Your task to perform on an android device: turn notification dots off Image 0: 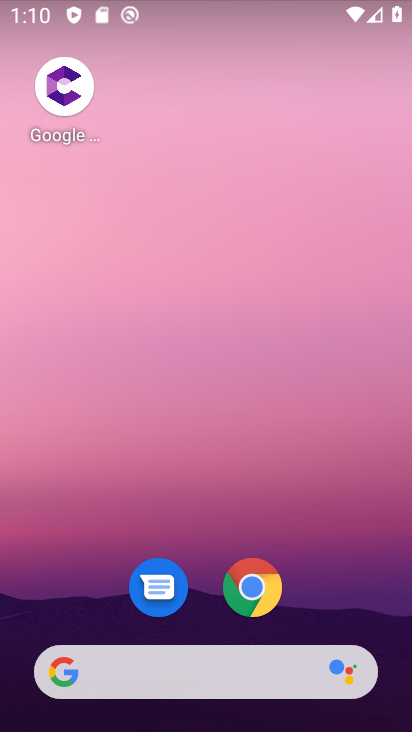
Step 0: drag from (207, 729) to (219, 311)
Your task to perform on an android device: turn notification dots off Image 1: 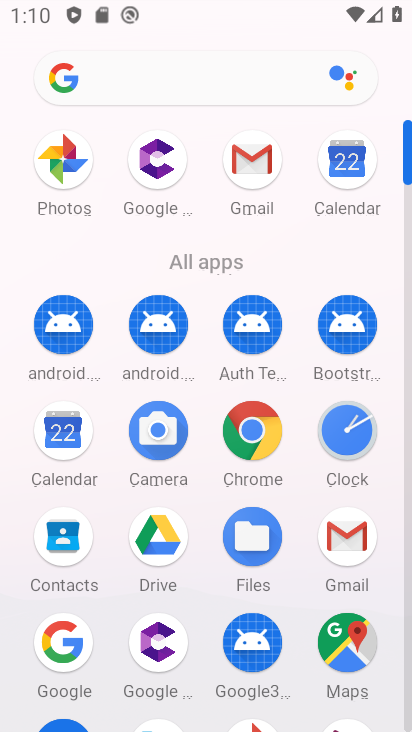
Step 1: drag from (195, 630) to (226, 436)
Your task to perform on an android device: turn notification dots off Image 2: 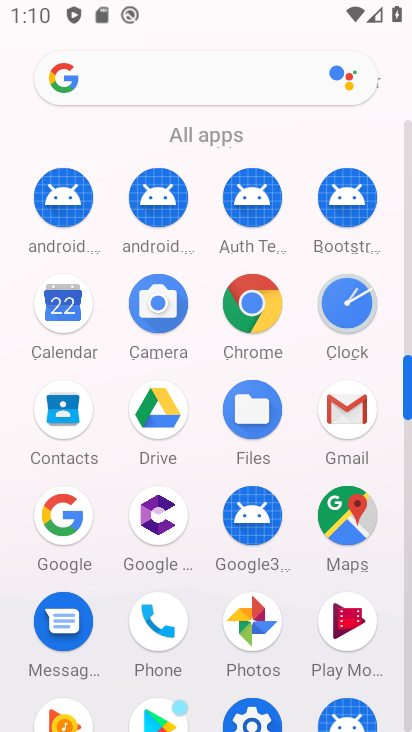
Step 2: click (241, 716)
Your task to perform on an android device: turn notification dots off Image 3: 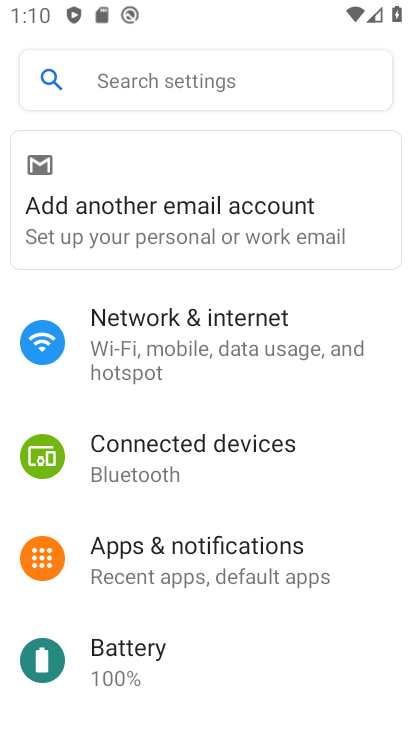
Step 3: drag from (228, 619) to (232, 484)
Your task to perform on an android device: turn notification dots off Image 4: 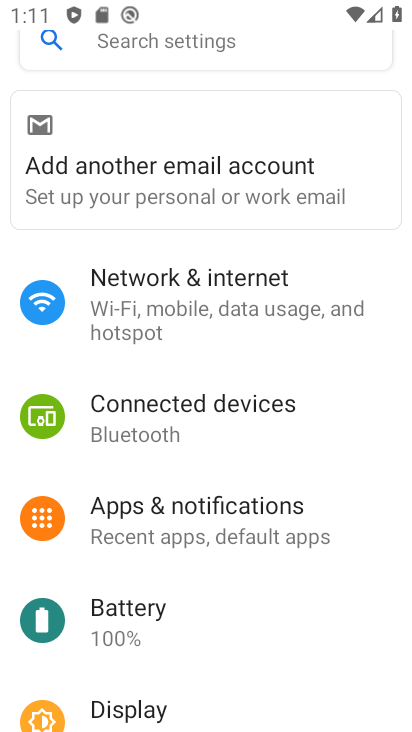
Step 4: click (285, 514)
Your task to perform on an android device: turn notification dots off Image 5: 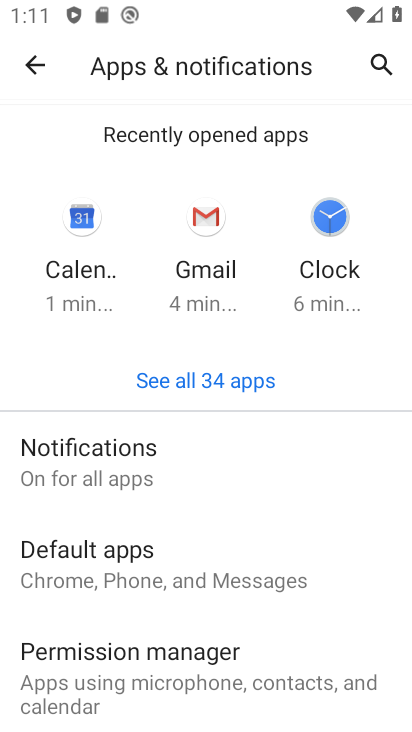
Step 5: click (258, 480)
Your task to perform on an android device: turn notification dots off Image 6: 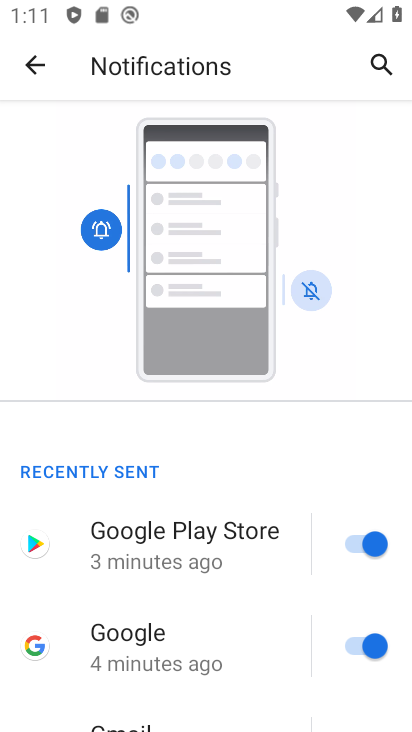
Step 6: drag from (216, 677) to (226, 536)
Your task to perform on an android device: turn notification dots off Image 7: 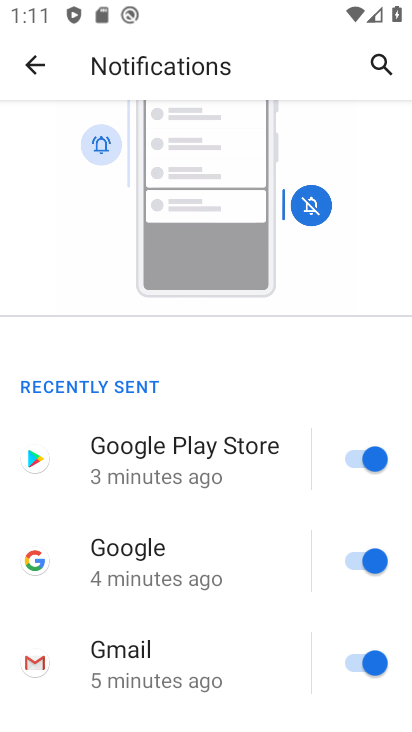
Step 7: drag from (185, 681) to (159, 555)
Your task to perform on an android device: turn notification dots off Image 8: 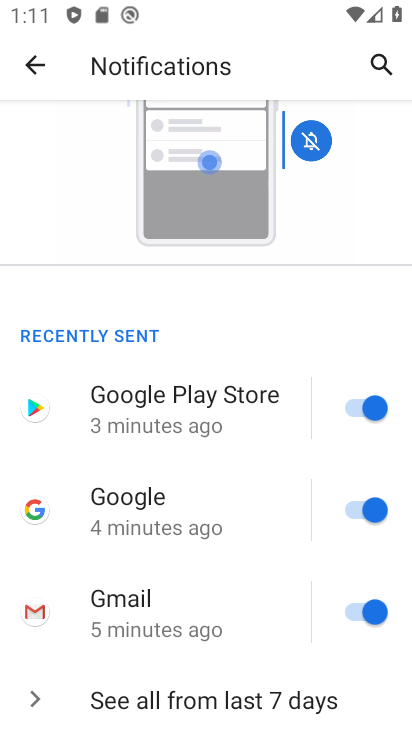
Step 8: drag from (179, 644) to (167, 549)
Your task to perform on an android device: turn notification dots off Image 9: 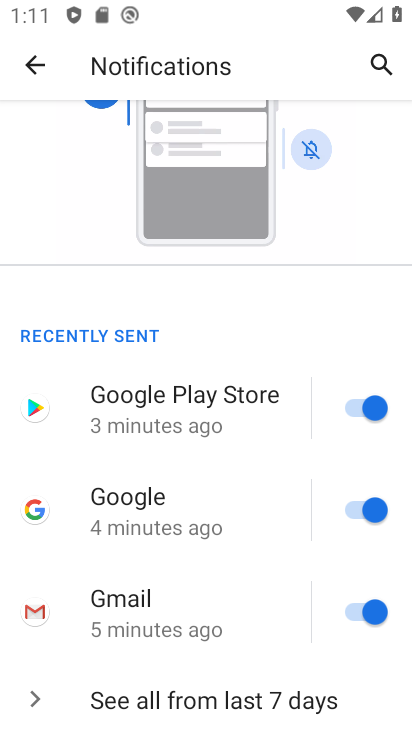
Step 9: drag from (146, 665) to (104, 584)
Your task to perform on an android device: turn notification dots off Image 10: 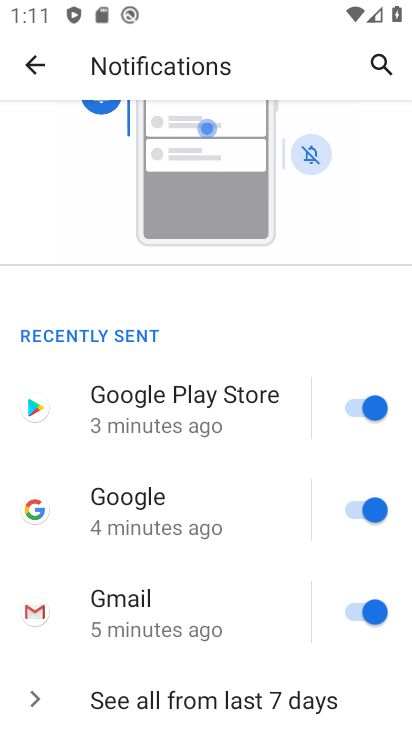
Step 10: click (370, 415)
Your task to perform on an android device: turn notification dots off Image 11: 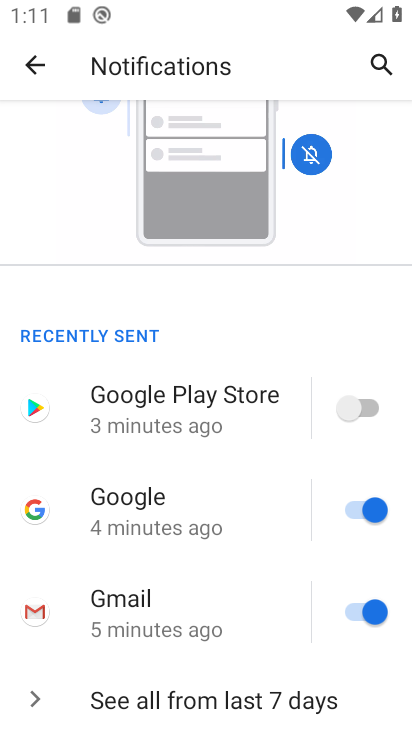
Step 11: click (370, 518)
Your task to perform on an android device: turn notification dots off Image 12: 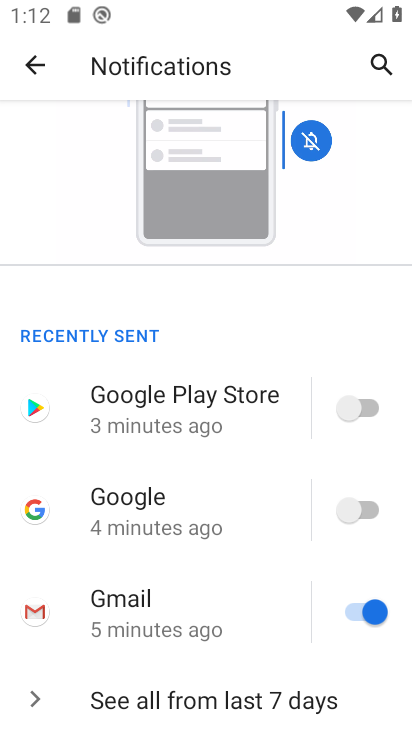
Step 12: click (378, 621)
Your task to perform on an android device: turn notification dots off Image 13: 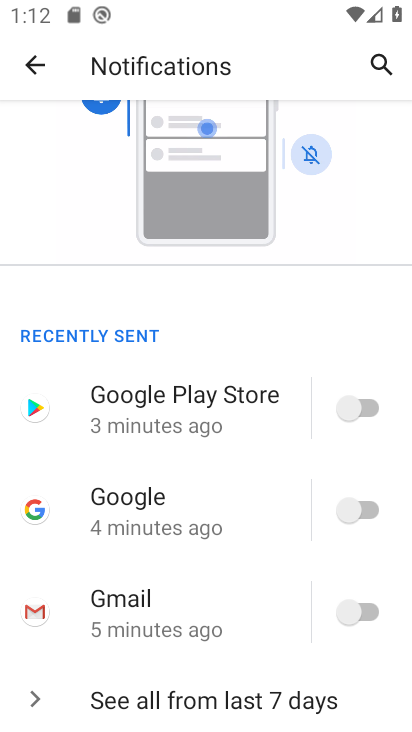
Step 13: task complete